Your task to perform on an android device: find snoozed emails in the gmail app Image 0: 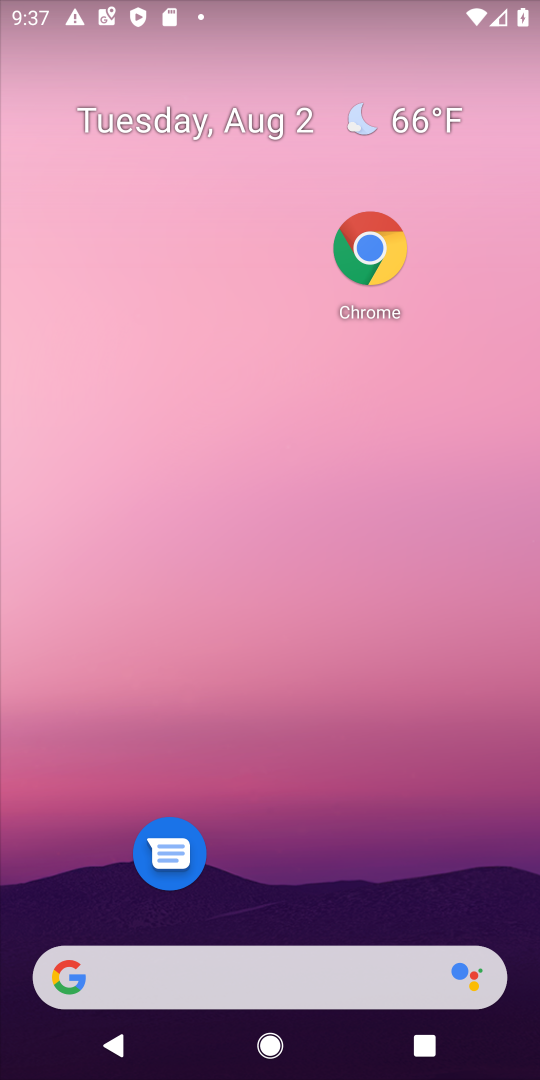
Step 0: drag from (319, 925) to (312, 7)
Your task to perform on an android device: find snoozed emails in the gmail app Image 1: 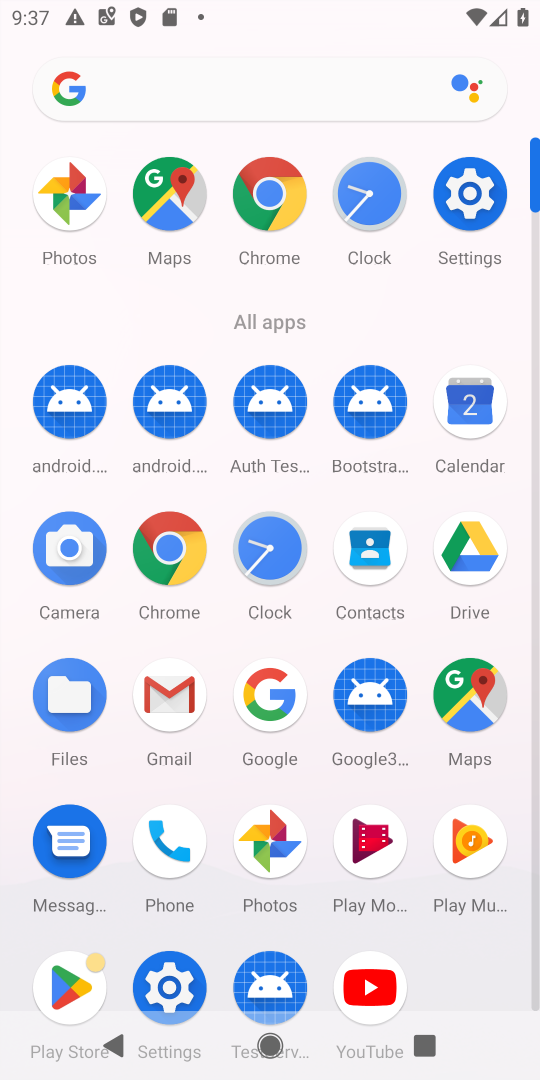
Step 1: click (175, 699)
Your task to perform on an android device: find snoozed emails in the gmail app Image 2: 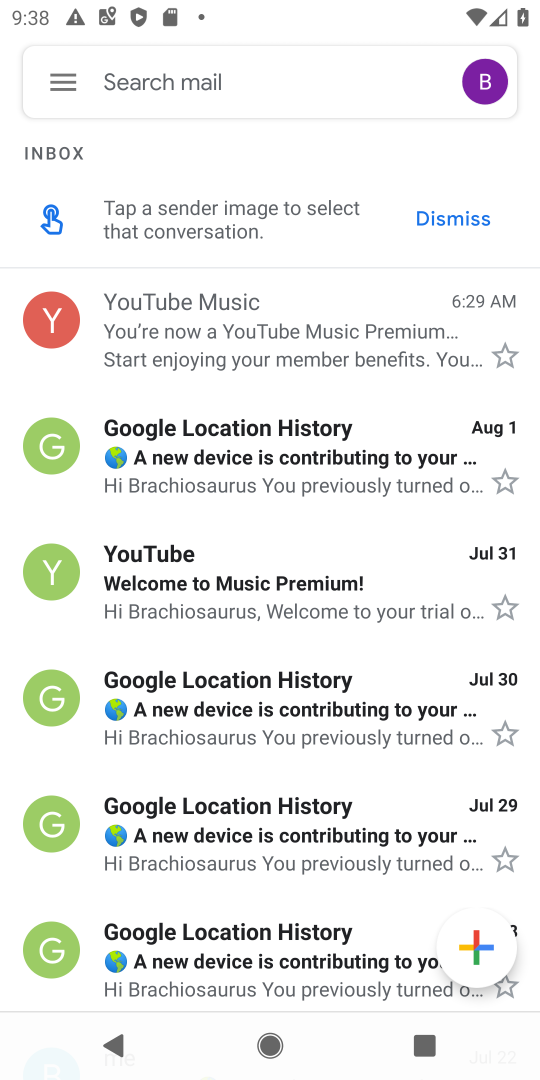
Step 2: drag from (47, 78) to (101, 78)
Your task to perform on an android device: find snoozed emails in the gmail app Image 3: 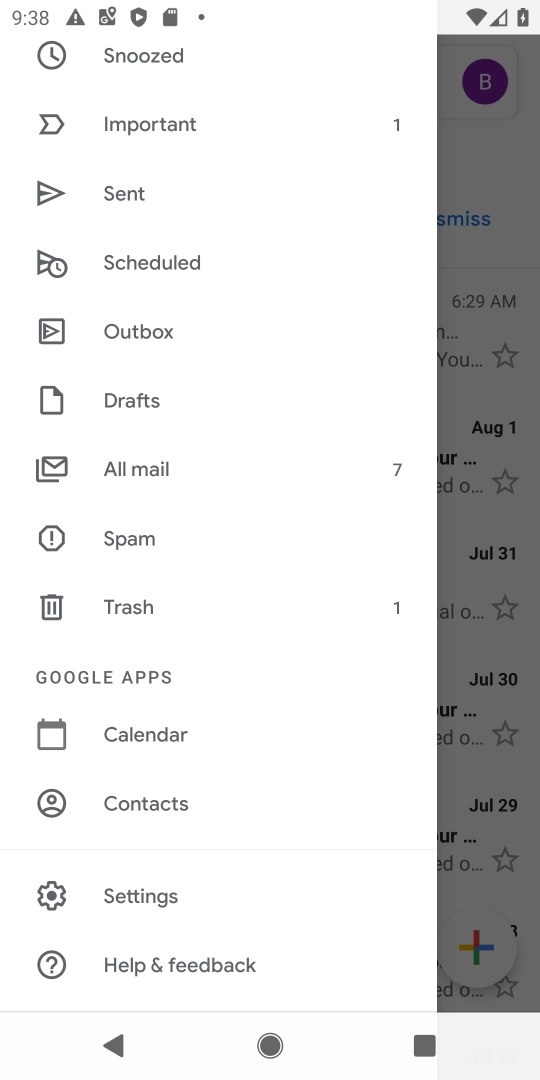
Step 3: drag from (148, 217) to (148, 926)
Your task to perform on an android device: find snoozed emails in the gmail app Image 4: 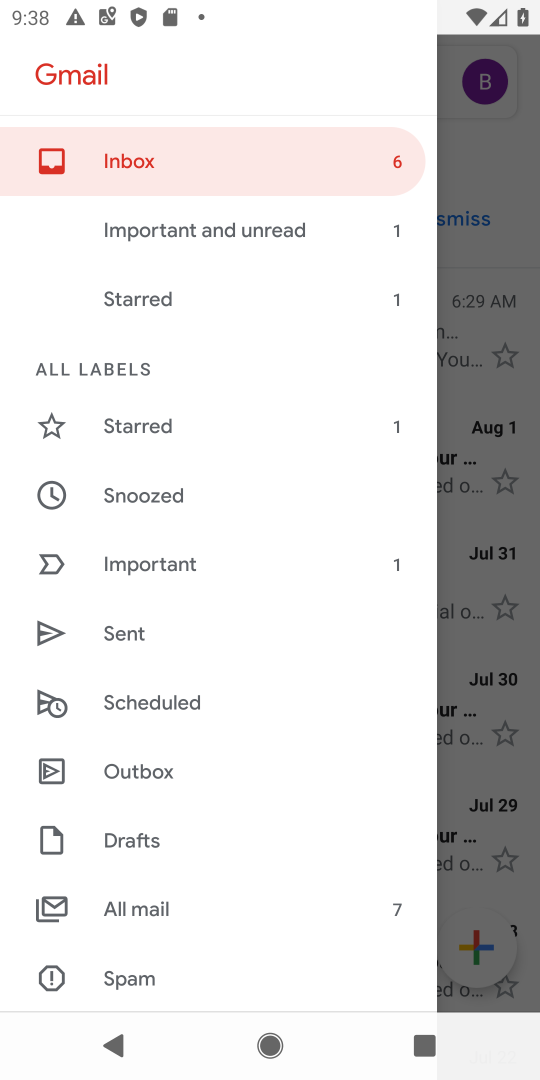
Step 4: click (130, 505)
Your task to perform on an android device: find snoozed emails in the gmail app Image 5: 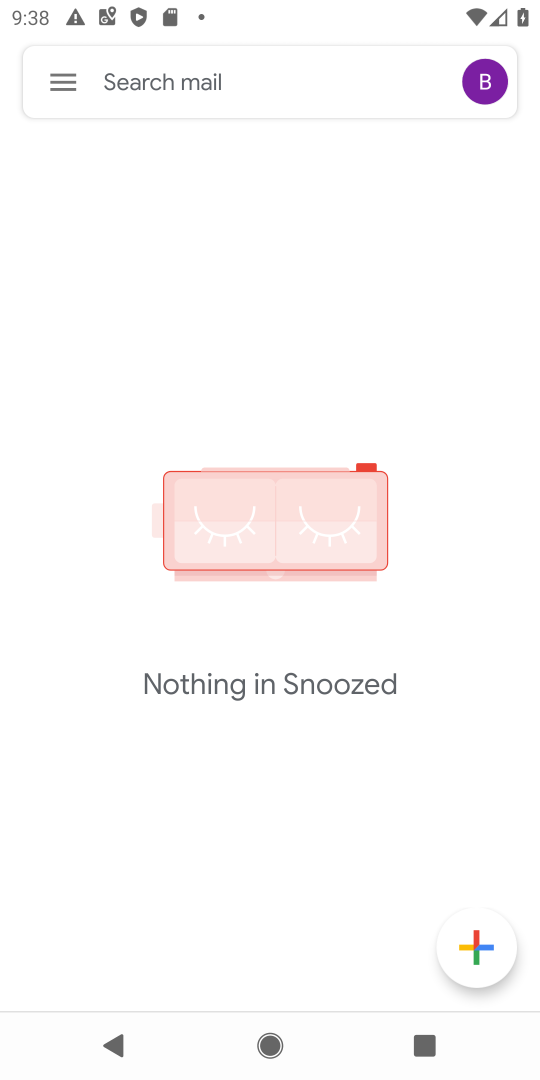
Step 5: task complete